Your task to perform on an android device: empty trash in google photos Image 0: 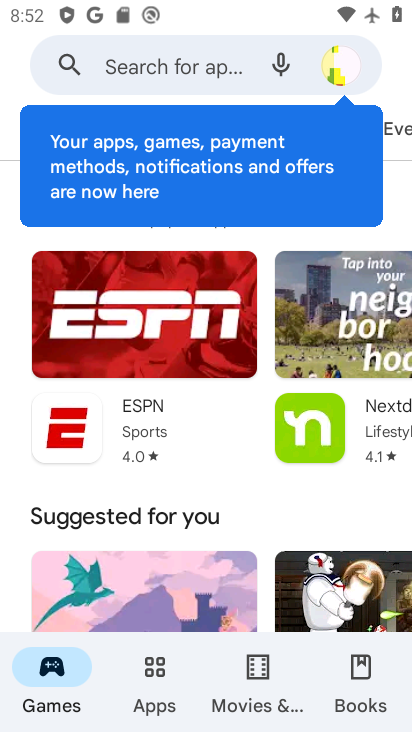
Step 0: press home button
Your task to perform on an android device: empty trash in google photos Image 1: 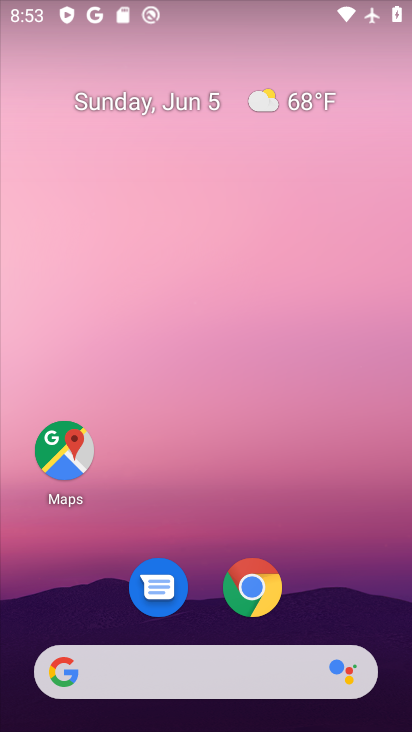
Step 1: drag from (322, 601) to (324, 2)
Your task to perform on an android device: empty trash in google photos Image 2: 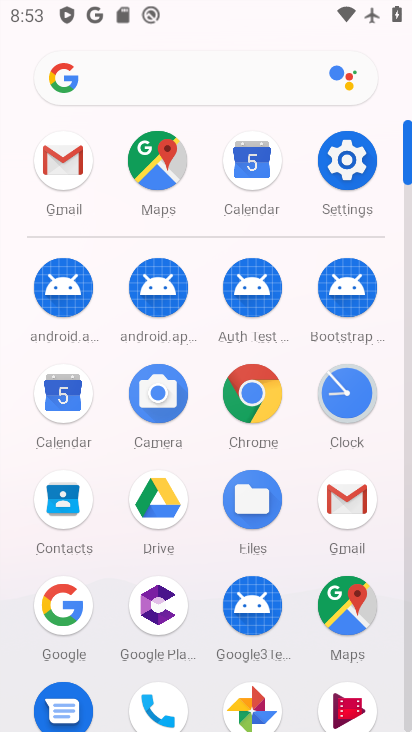
Step 2: click (248, 694)
Your task to perform on an android device: empty trash in google photos Image 3: 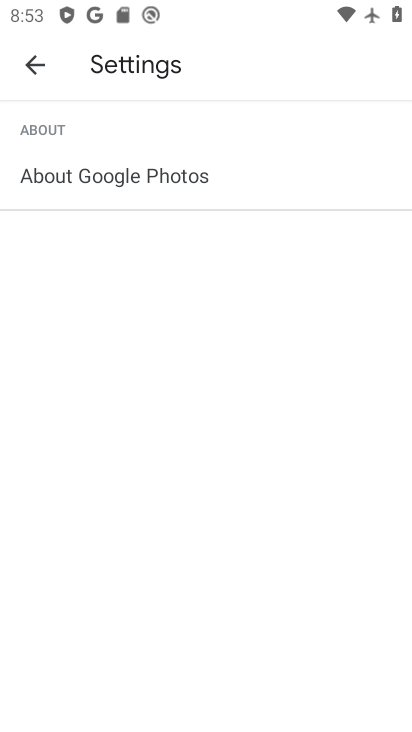
Step 3: click (38, 62)
Your task to perform on an android device: empty trash in google photos Image 4: 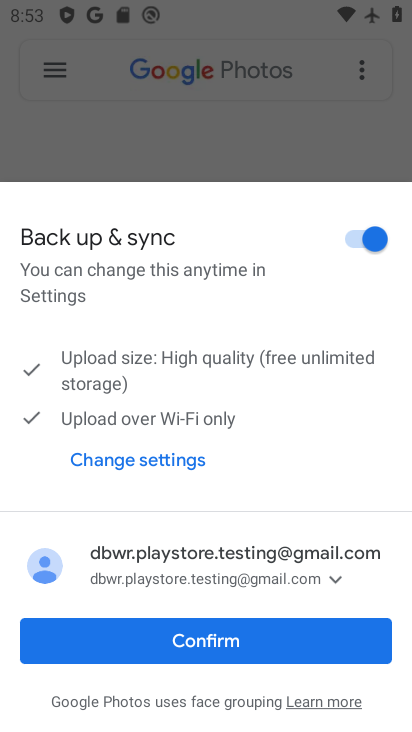
Step 4: click (235, 635)
Your task to perform on an android device: empty trash in google photos Image 5: 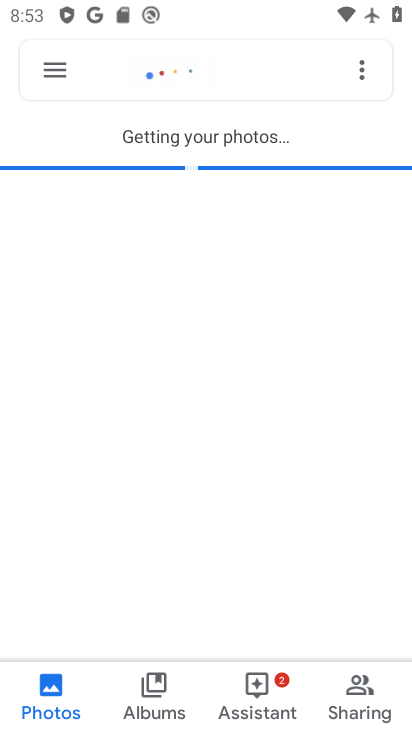
Step 5: click (56, 81)
Your task to perform on an android device: empty trash in google photos Image 6: 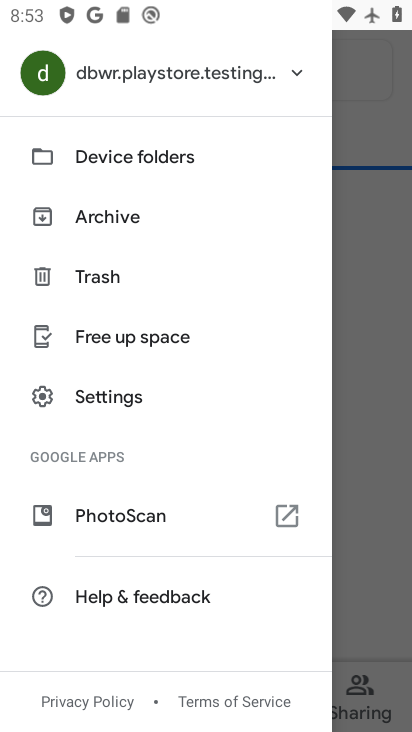
Step 6: click (107, 270)
Your task to perform on an android device: empty trash in google photos Image 7: 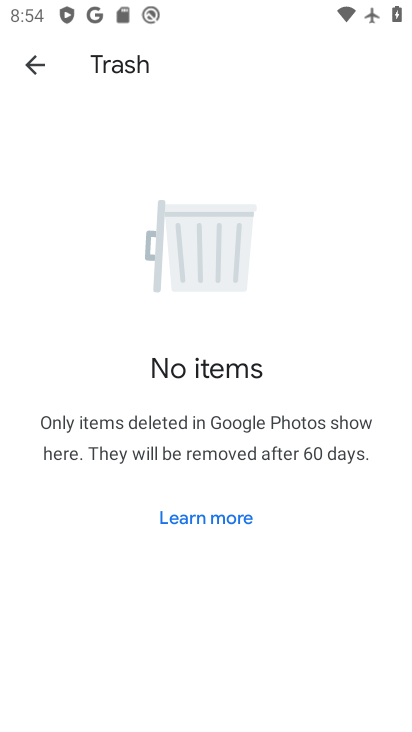
Step 7: task complete